Your task to perform on an android device: Go to battery settings Image 0: 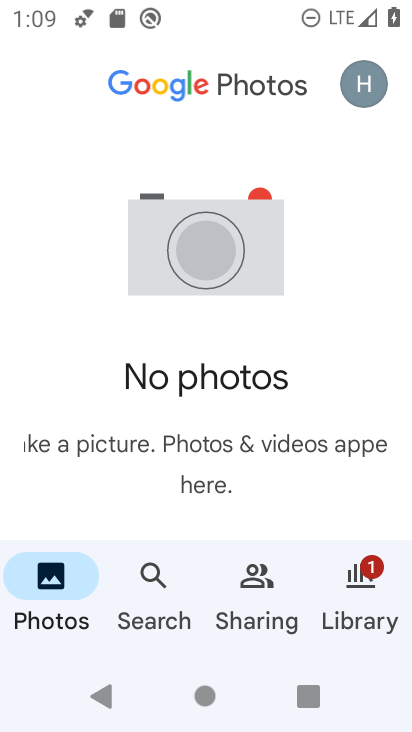
Step 0: press home button
Your task to perform on an android device: Go to battery settings Image 1: 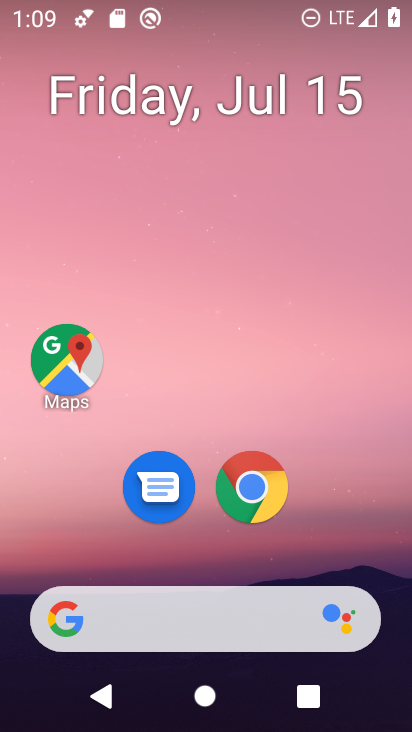
Step 1: drag from (275, 588) to (301, 287)
Your task to perform on an android device: Go to battery settings Image 2: 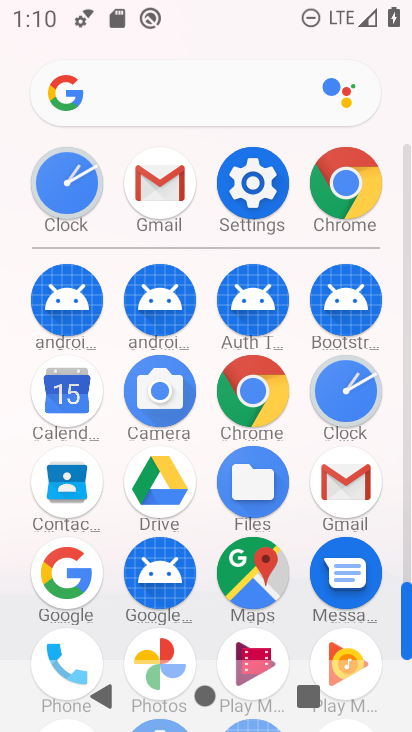
Step 2: click (264, 186)
Your task to perform on an android device: Go to battery settings Image 3: 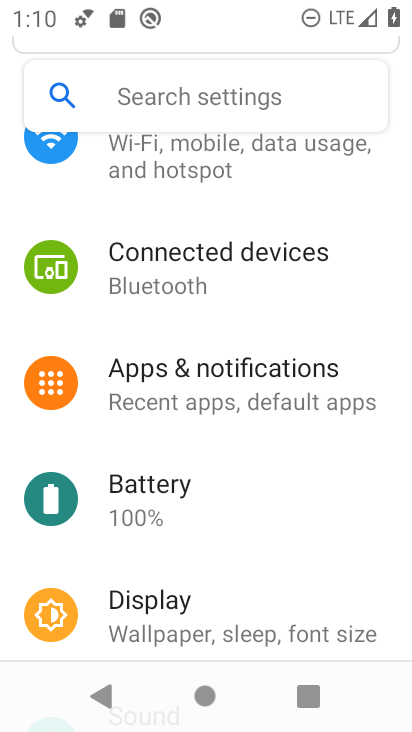
Step 3: click (192, 501)
Your task to perform on an android device: Go to battery settings Image 4: 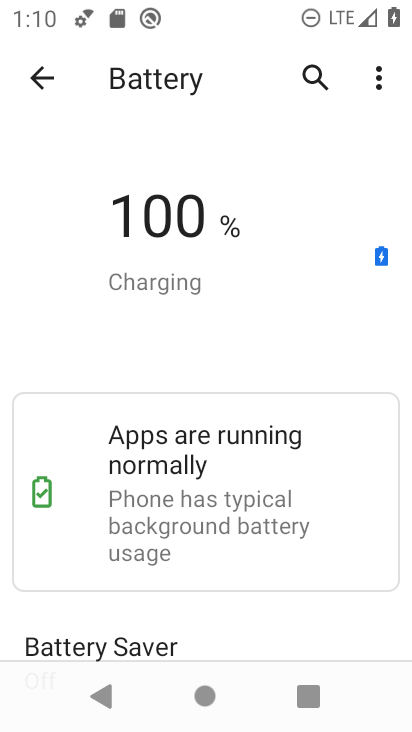
Step 4: task complete